Your task to perform on an android device: Go to Wikipedia Image 0: 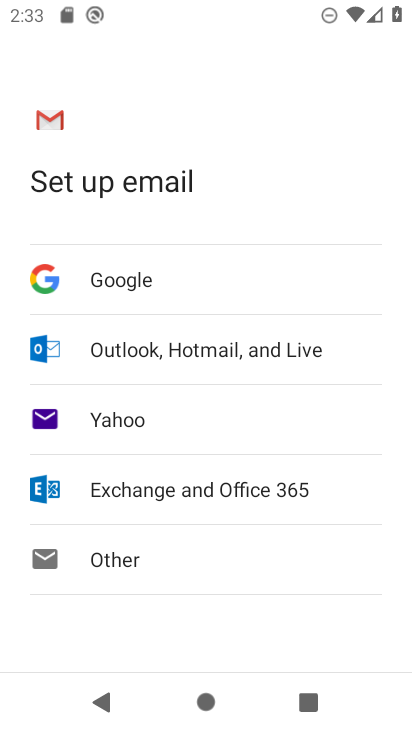
Step 0: press home button
Your task to perform on an android device: Go to Wikipedia Image 1: 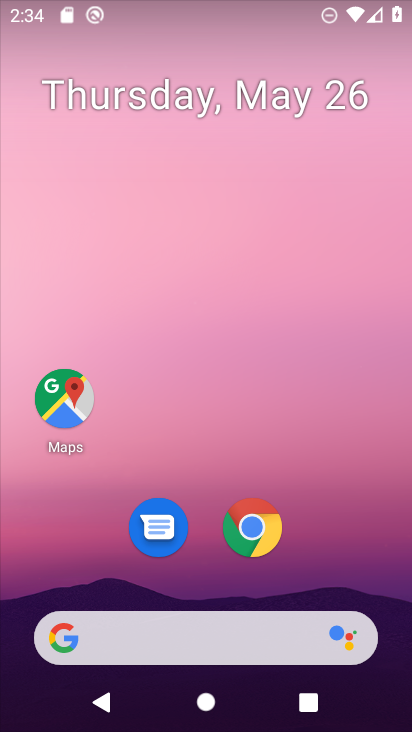
Step 1: click (256, 533)
Your task to perform on an android device: Go to Wikipedia Image 2: 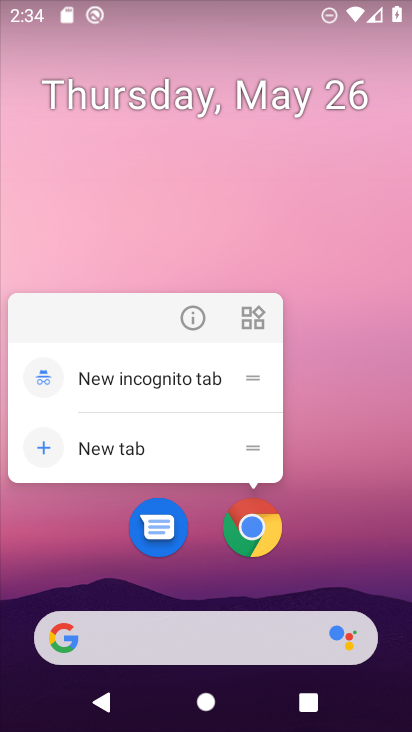
Step 2: click (256, 533)
Your task to perform on an android device: Go to Wikipedia Image 3: 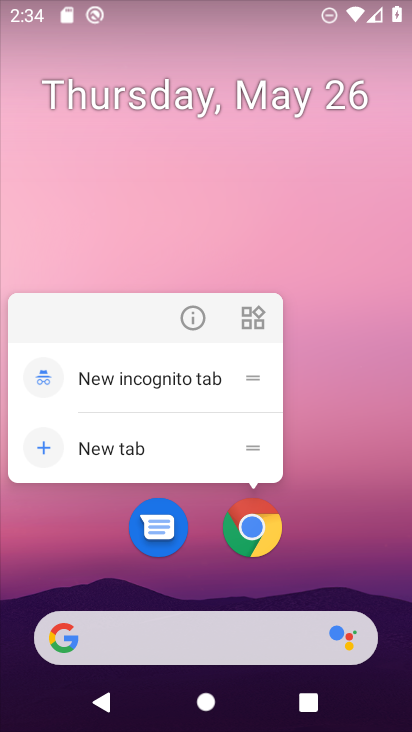
Step 3: click (248, 516)
Your task to perform on an android device: Go to Wikipedia Image 4: 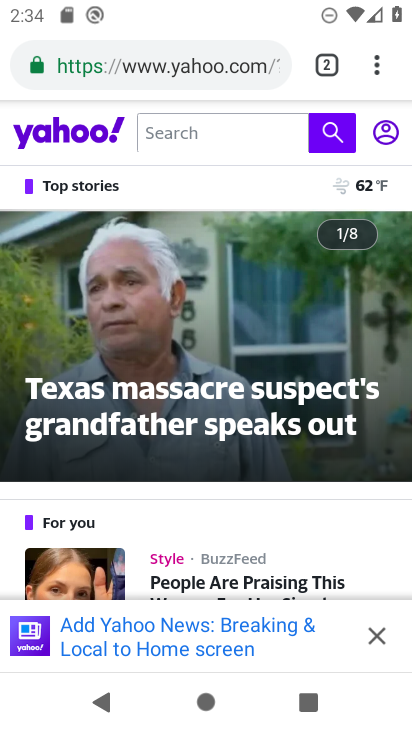
Step 4: click (325, 66)
Your task to perform on an android device: Go to Wikipedia Image 5: 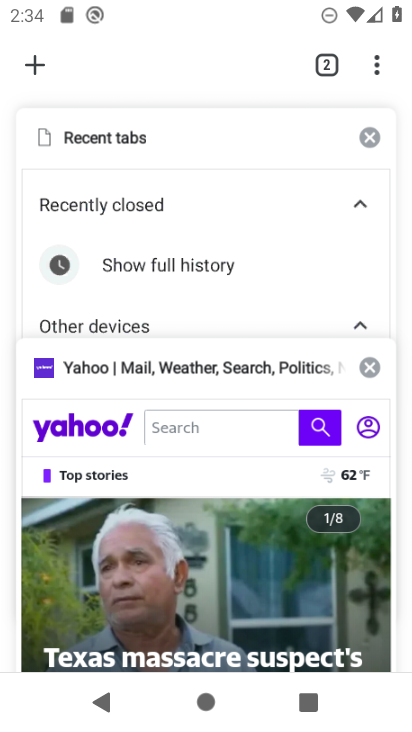
Step 5: click (24, 61)
Your task to perform on an android device: Go to Wikipedia Image 6: 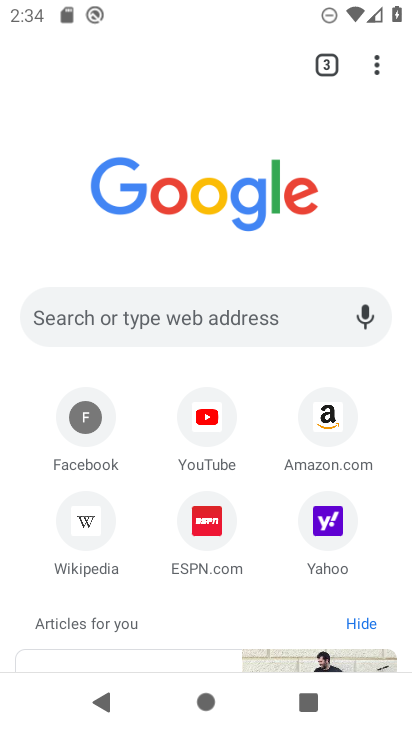
Step 6: click (93, 511)
Your task to perform on an android device: Go to Wikipedia Image 7: 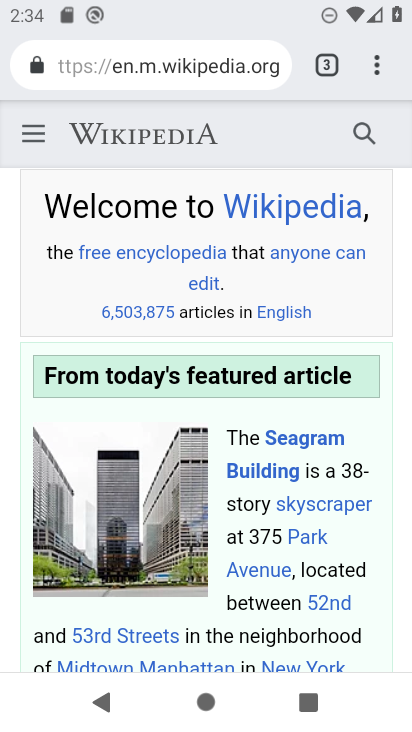
Step 7: task complete